Your task to perform on an android device: Set the phone to "Do not disturb". Image 0: 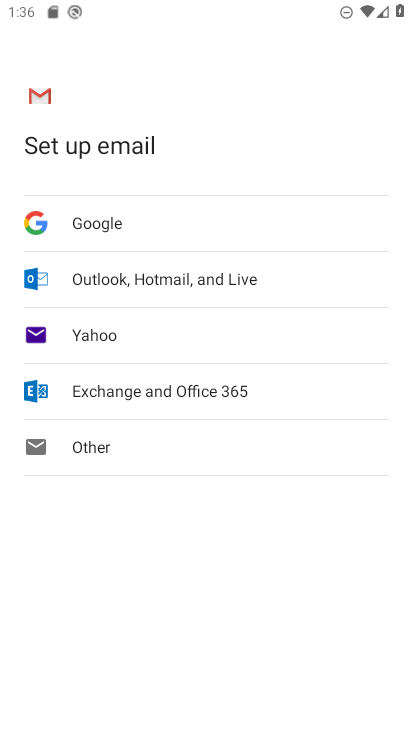
Step 0: press home button
Your task to perform on an android device: Set the phone to "Do not disturb". Image 1: 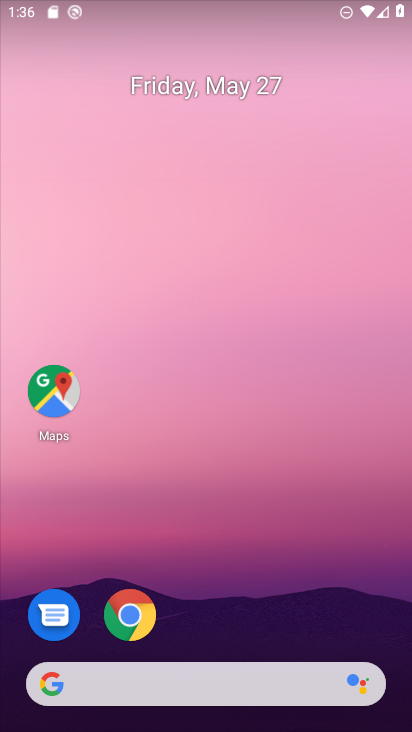
Step 1: drag from (272, 613) to (214, 137)
Your task to perform on an android device: Set the phone to "Do not disturb". Image 2: 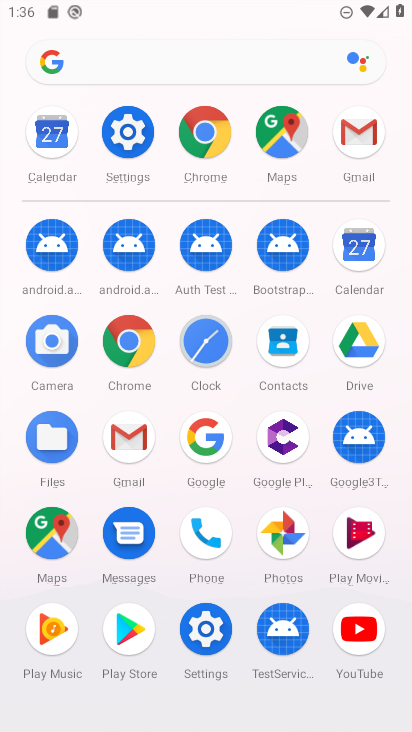
Step 2: click (204, 638)
Your task to perform on an android device: Set the phone to "Do not disturb". Image 3: 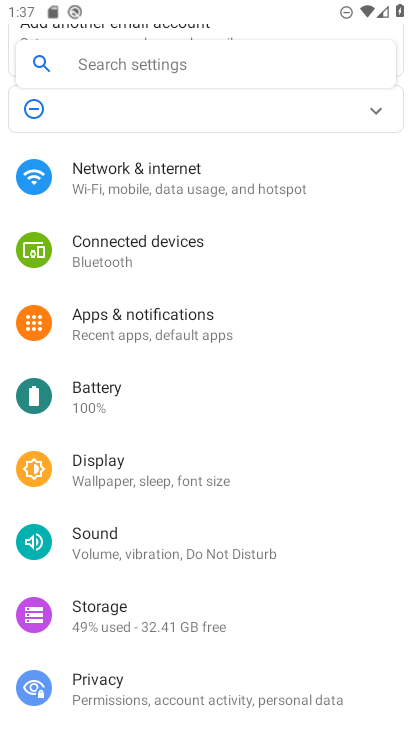
Step 3: drag from (155, 662) to (218, 396)
Your task to perform on an android device: Set the phone to "Do not disturb". Image 4: 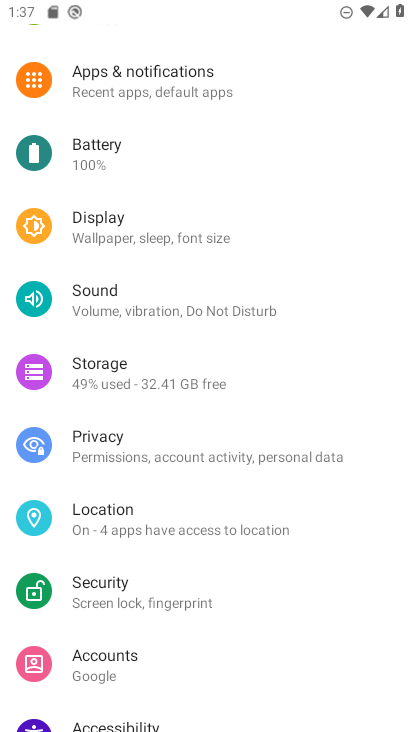
Step 4: click (218, 312)
Your task to perform on an android device: Set the phone to "Do not disturb". Image 5: 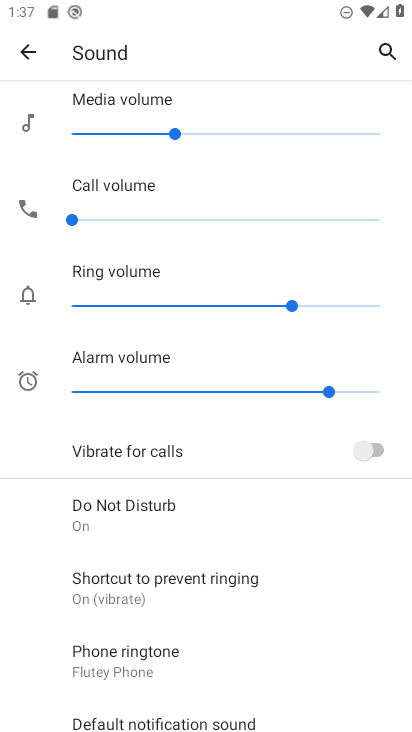
Step 5: drag from (164, 613) to (203, 223)
Your task to perform on an android device: Set the phone to "Do not disturb". Image 6: 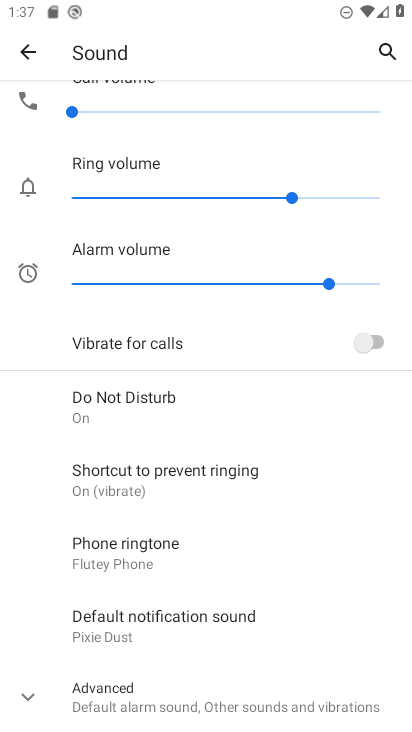
Step 6: click (195, 420)
Your task to perform on an android device: Set the phone to "Do not disturb". Image 7: 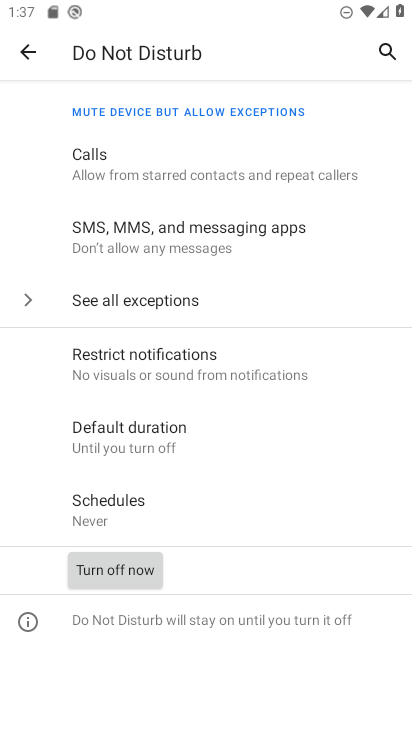
Step 7: task complete